Your task to perform on an android device: set the stopwatch Image 0: 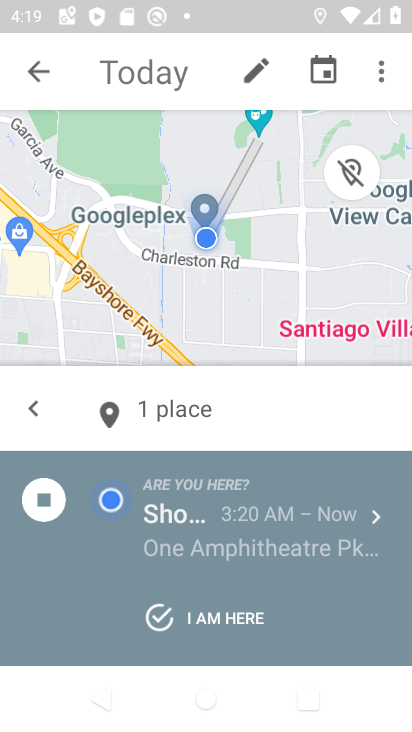
Step 0: press home button
Your task to perform on an android device: set the stopwatch Image 1: 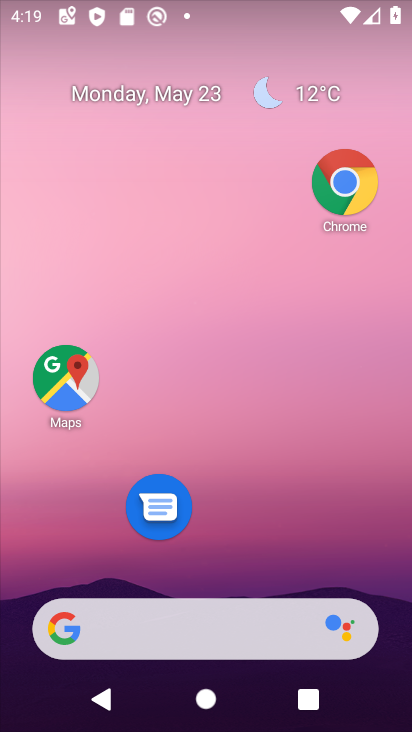
Step 1: click (207, 102)
Your task to perform on an android device: set the stopwatch Image 2: 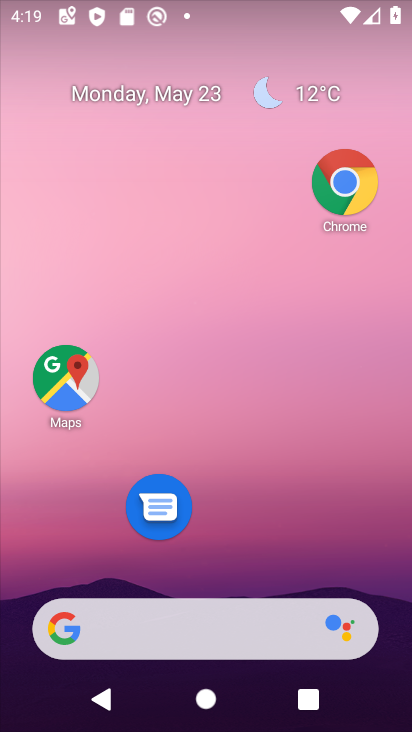
Step 2: drag from (339, 9) to (293, 7)
Your task to perform on an android device: set the stopwatch Image 3: 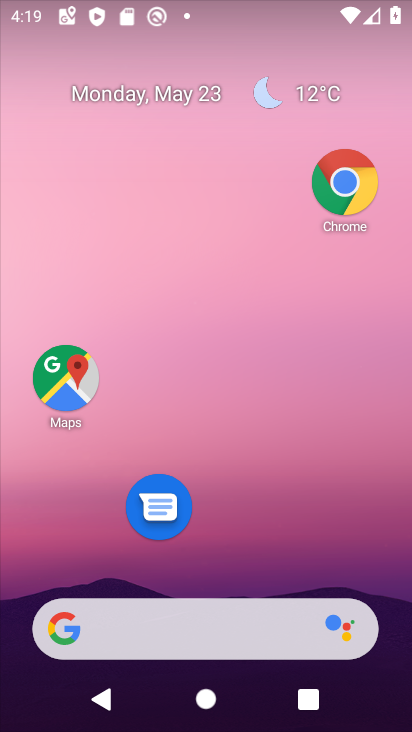
Step 3: drag from (202, 145) to (193, 88)
Your task to perform on an android device: set the stopwatch Image 4: 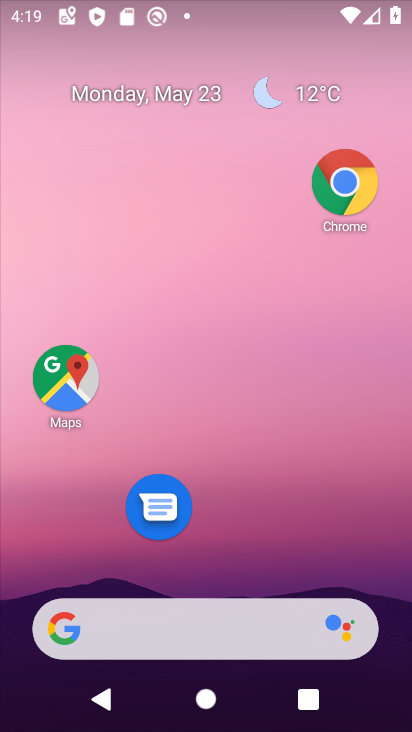
Step 4: drag from (252, 341) to (232, 161)
Your task to perform on an android device: set the stopwatch Image 5: 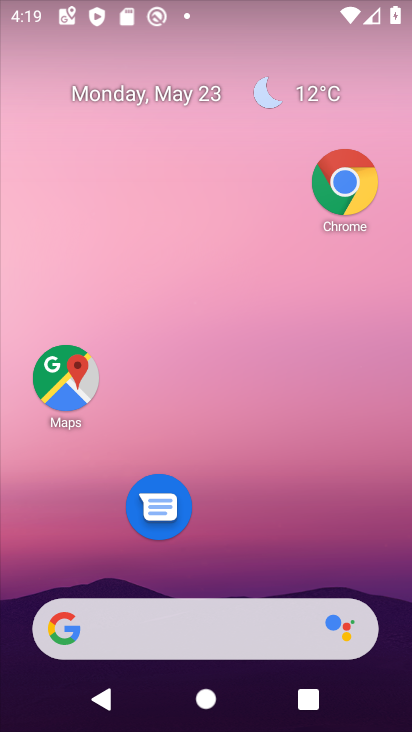
Step 5: drag from (264, 582) to (230, 138)
Your task to perform on an android device: set the stopwatch Image 6: 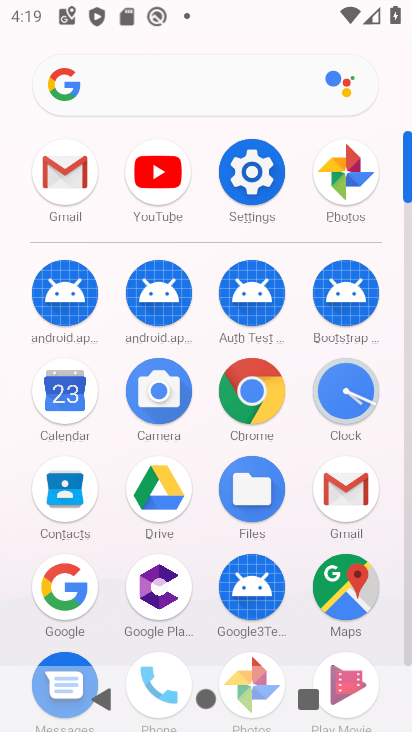
Step 6: click (342, 385)
Your task to perform on an android device: set the stopwatch Image 7: 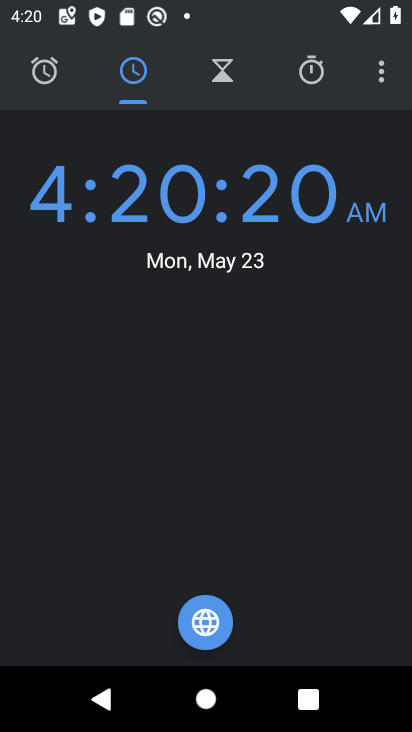
Step 7: click (296, 72)
Your task to perform on an android device: set the stopwatch Image 8: 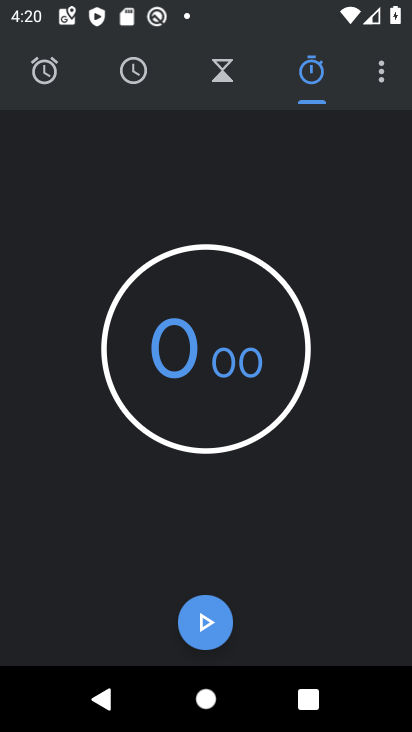
Step 8: click (214, 622)
Your task to perform on an android device: set the stopwatch Image 9: 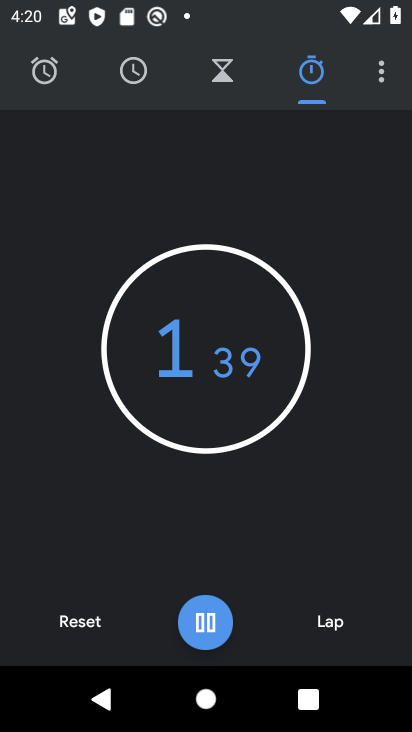
Step 9: task complete